Your task to perform on an android device: Show me popular videos on Youtube Image 0: 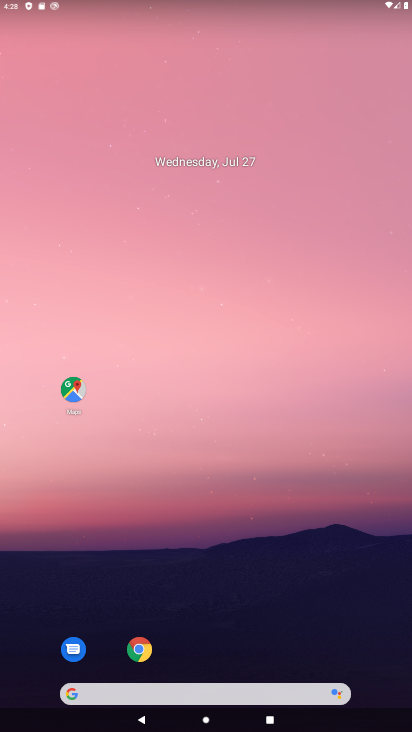
Step 0: drag from (199, 690) to (237, 118)
Your task to perform on an android device: Show me popular videos on Youtube Image 1: 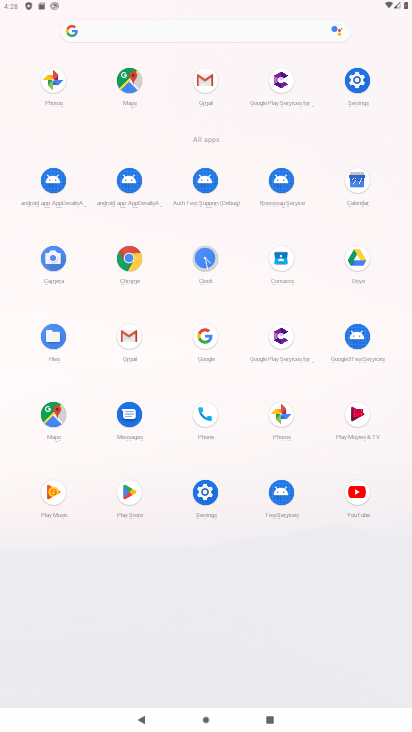
Step 1: click (356, 491)
Your task to perform on an android device: Show me popular videos on Youtube Image 2: 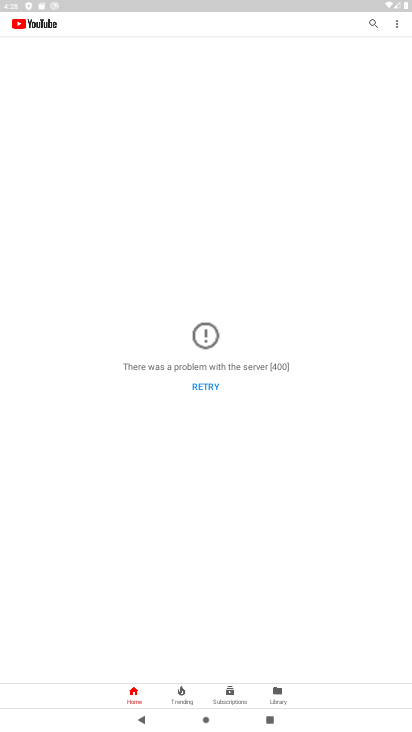
Step 2: click (209, 386)
Your task to perform on an android device: Show me popular videos on Youtube Image 3: 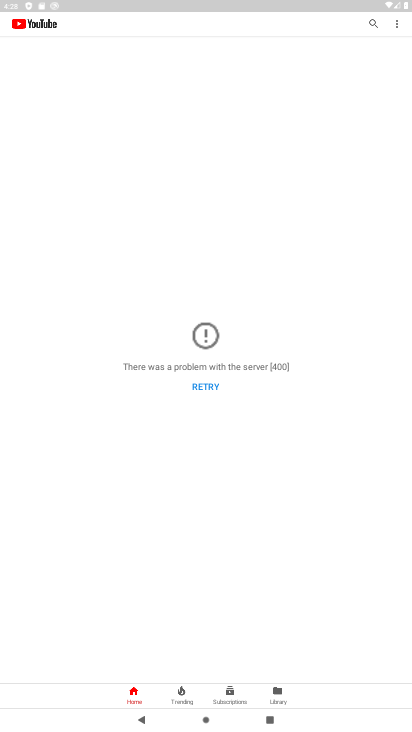
Step 3: click (209, 386)
Your task to perform on an android device: Show me popular videos on Youtube Image 4: 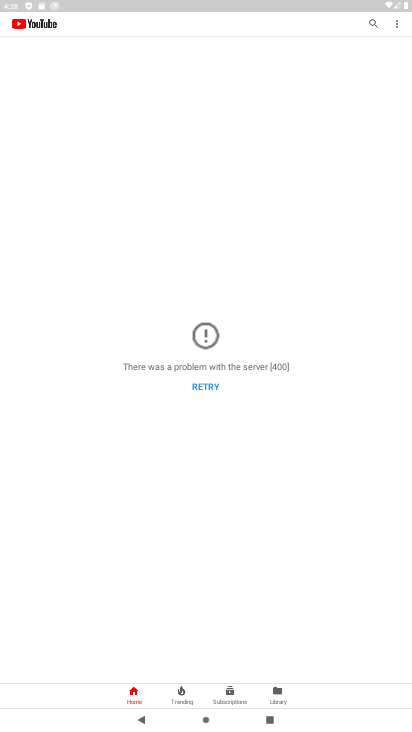
Step 4: click (209, 386)
Your task to perform on an android device: Show me popular videos on Youtube Image 5: 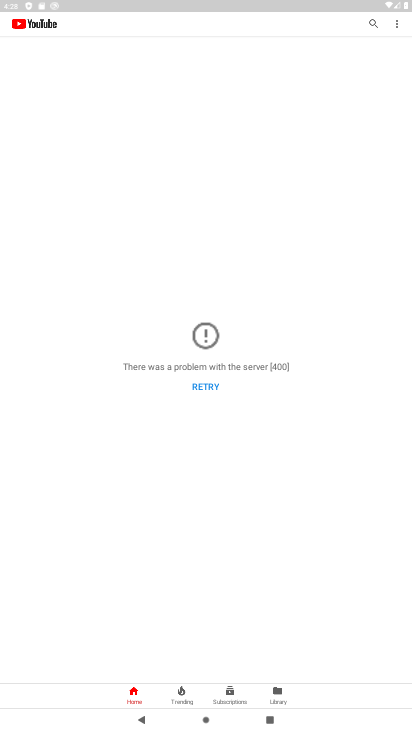
Step 5: click (209, 386)
Your task to perform on an android device: Show me popular videos on Youtube Image 6: 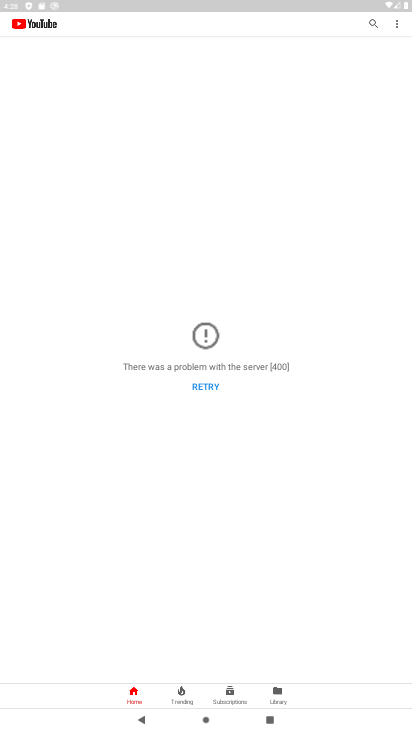
Step 6: click (209, 386)
Your task to perform on an android device: Show me popular videos on Youtube Image 7: 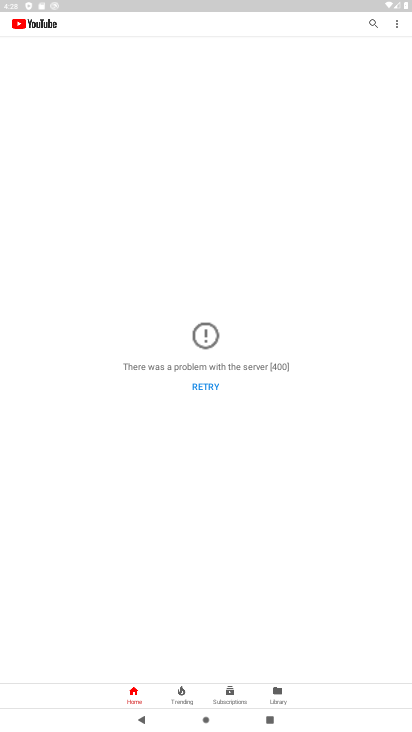
Step 7: click (209, 386)
Your task to perform on an android device: Show me popular videos on Youtube Image 8: 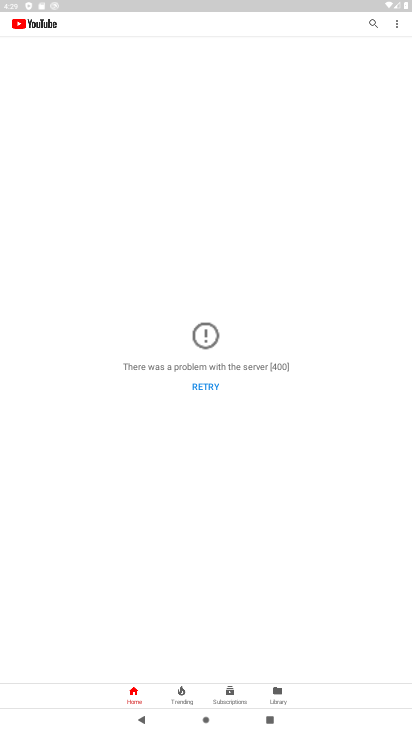
Step 8: click (377, 22)
Your task to perform on an android device: Show me popular videos on Youtube Image 9: 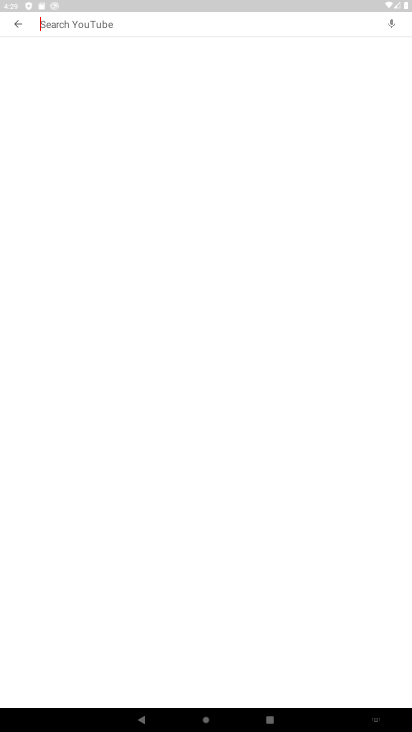
Step 9: type "popular videos on Youtube"
Your task to perform on an android device: Show me popular videos on Youtube Image 10: 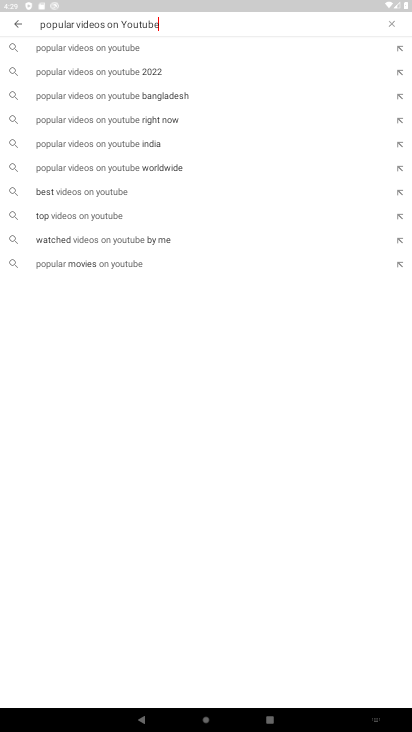
Step 10: click (107, 49)
Your task to perform on an android device: Show me popular videos on Youtube Image 11: 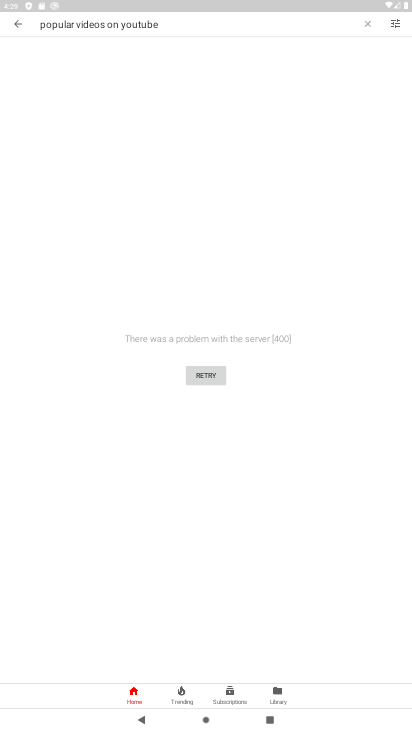
Step 11: task complete